Your task to perform on an android device: turn vacation reply on in the gmail app Image 0: 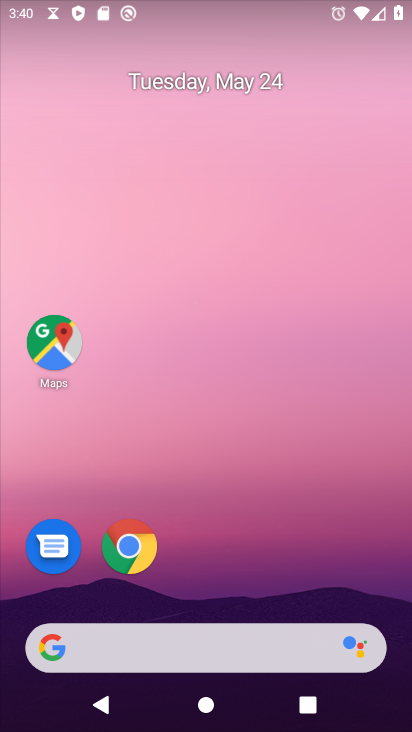
Step 0: drag from (284, 454) to (385, 128)
Your task to perform on an android device: turn vacation reply on in the gmail app Image 1: 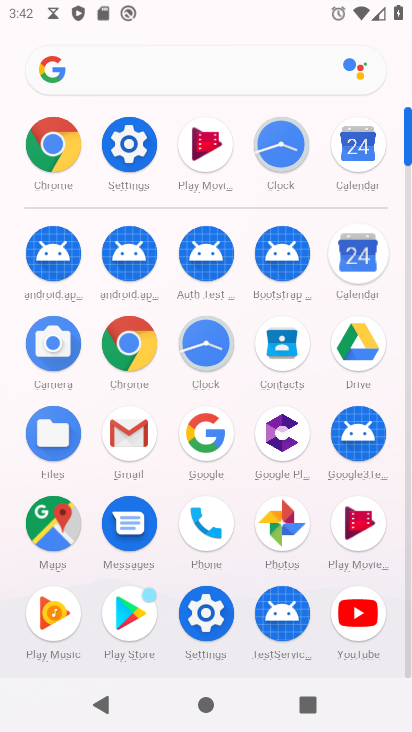
Step 1: click (131, 433)
Your task to perform on an android device: turn vacation reply on in the gmail app Image 2: 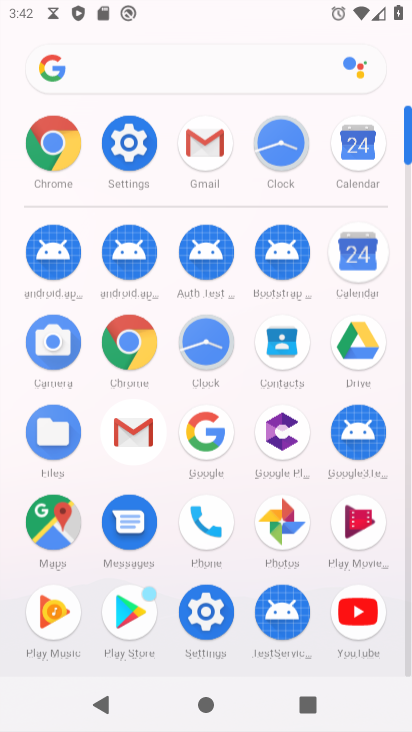
Step 2: click (138, 426)
Your task to perform on an android device: turn vacation reply on in the gmail app Image 3: 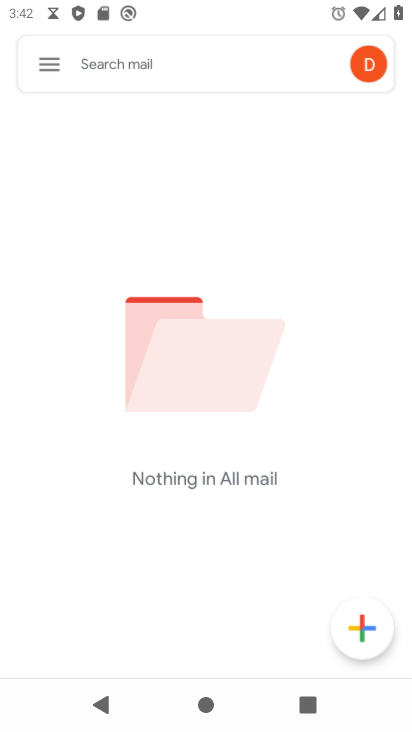
Step 3: click (140, 439)
Your task to perform on an android device: turn vacation reply on in the gmail app Image 4: 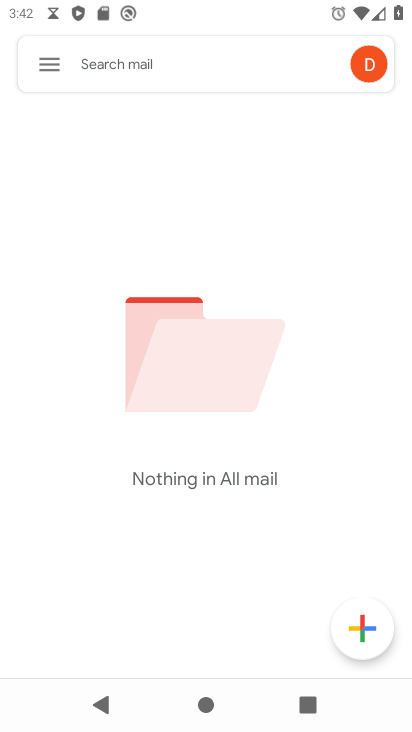
Step 4: click (120, 444)
Your task to perform on an android device: turn vacation reply on in the gmail app Image 5: 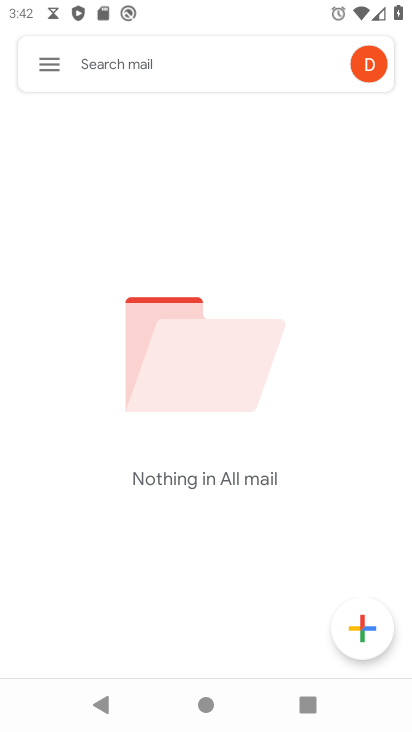
Step 5: click (51, 73)
Your task to perform on an android device: turn vacation reply on in the gmail app Image 6: 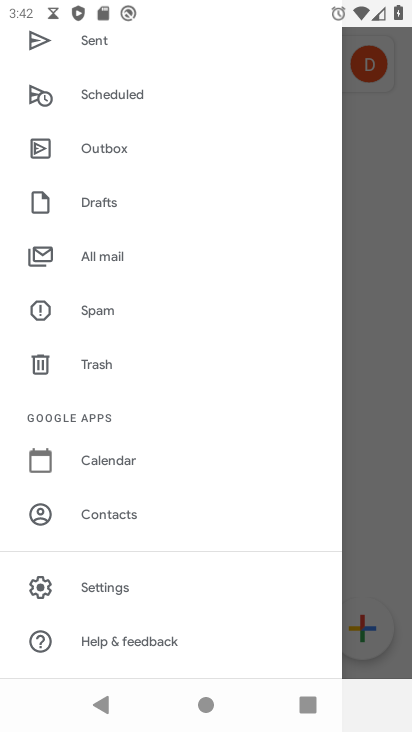
Step 6: click (98, 588)
Your task to perform on an android device: turn vacation reply on in the gmail app Image 7: 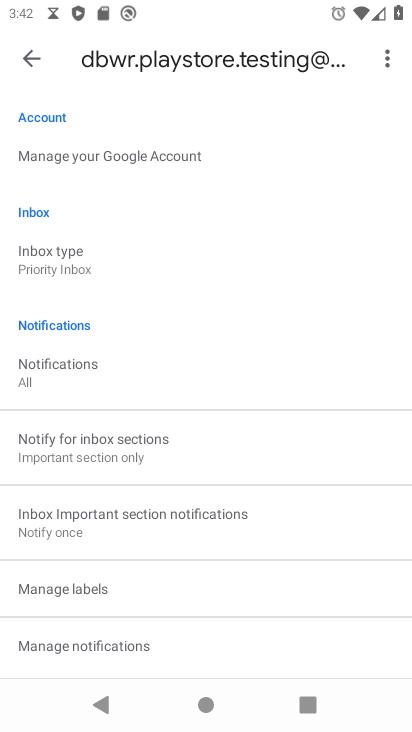
Step 7: drag from (148, 574) to (140, 258)
Your task to perform on an android device: turn vacation reply on in the gmail app Image 8: 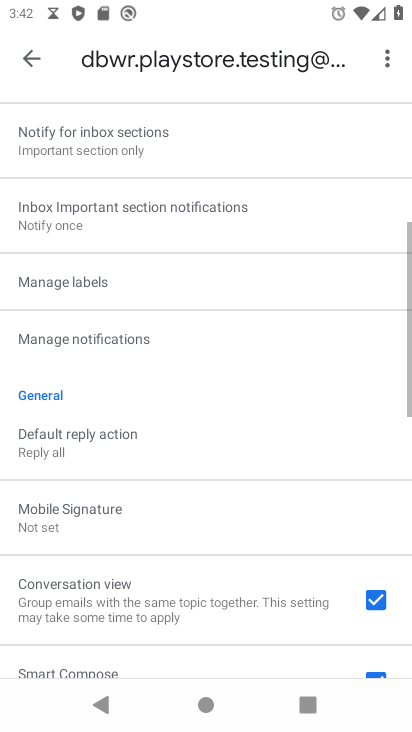
Step 8: drag from (166, 624) to (190, 317)
Your task to perform on an android device: turn vacation reply on in the gmail app Image 9: 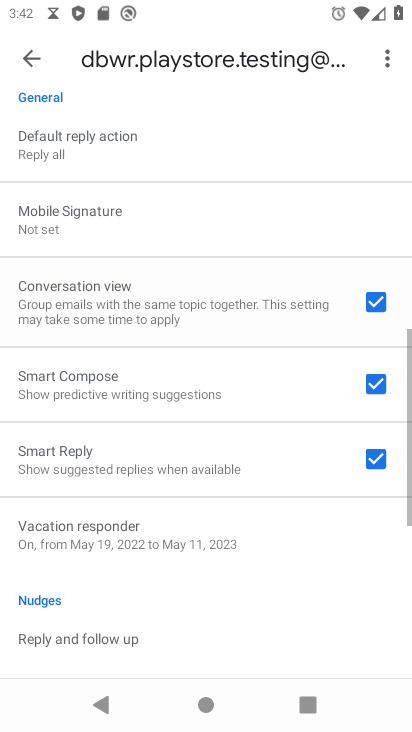
Step 9: drag from (181, 474) to (175, 394)
Your task to perform on an android device: turn vacation reply on in the gmail app Image 10: 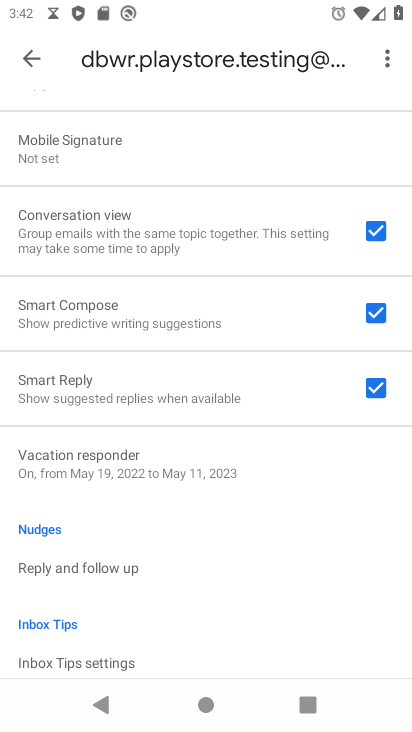
Step 10: click (105, 464)
Your task to perform on an android device: turn vacation reply on in the gmail app Image 11: 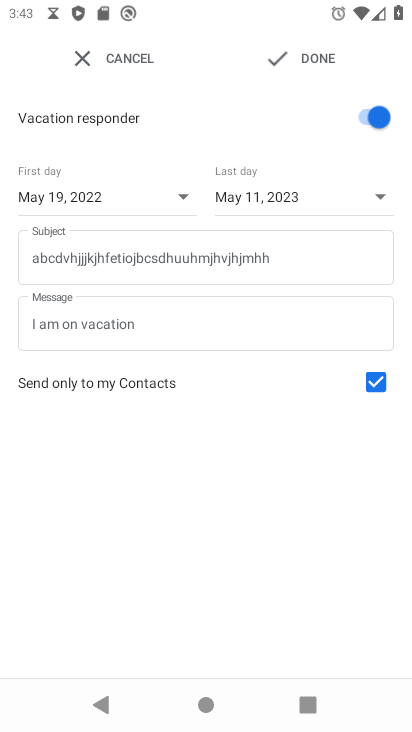
Step 11: task complete